Your task to perform on an android device: turn off location Image 0: 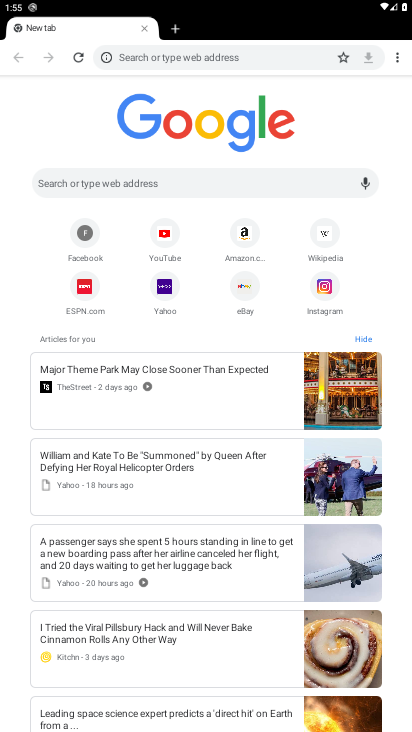
Step 0: drag from (137, 532) to (406, 2)
Your task to perform on an android device: turn off location Image 1: 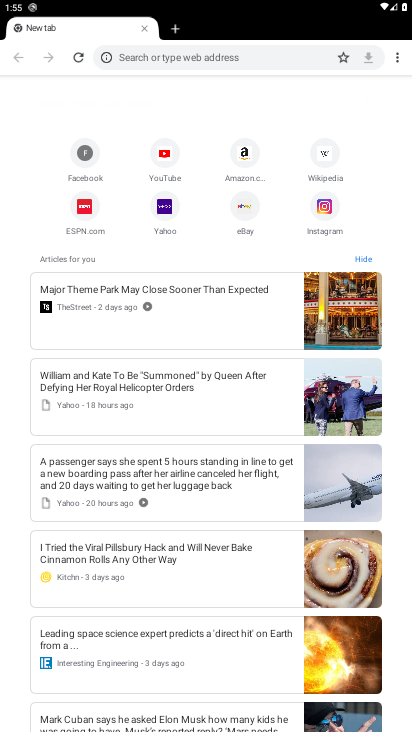
Step 1: press home button
Your task to perform on an android device: turn off location Image 2: 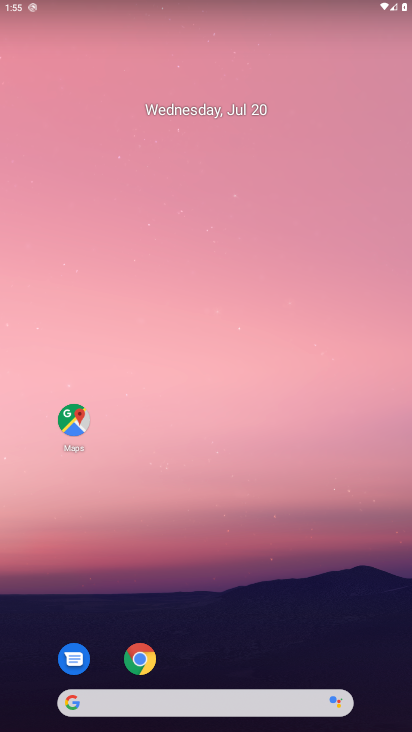
Step 2: drag from (25, 678) to (237, 162)
Your task to perform on an android device: turn off location Image 3: 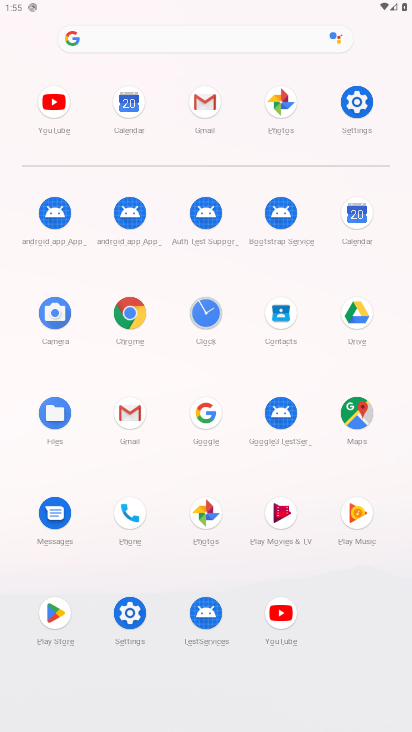
Step 3: click (148, 604)
Your task to perform on an android device: turn off location Image 4: 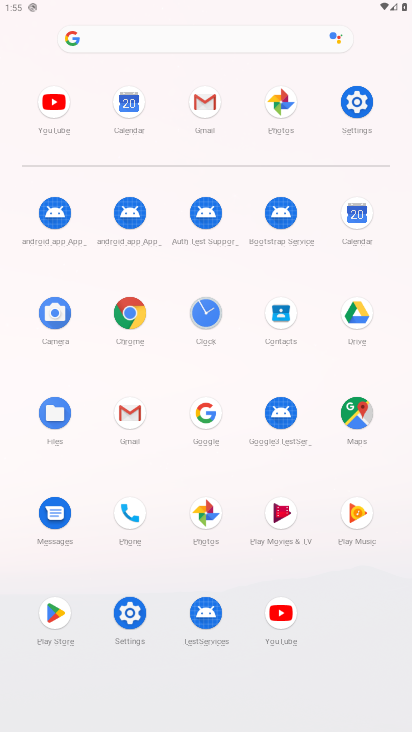
Step 4: click (124, 624)
Your task to perform on an android device: turn off location Image 5: 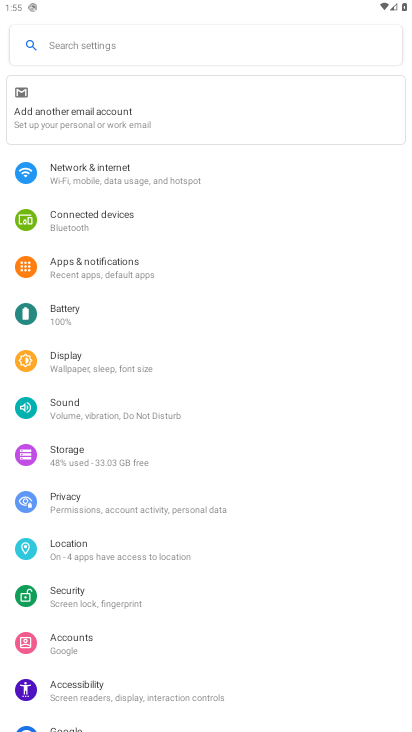
Step 5: click (105, 551)
Your task to perform on an android device: turn off location Image 6: 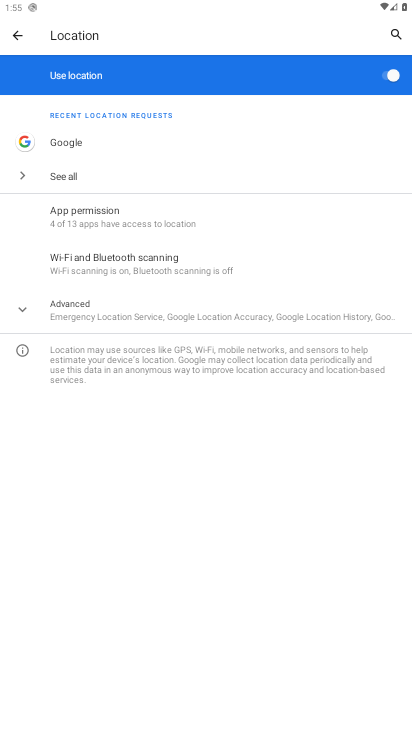
Step 6: click (396, 76)
Your task to perform on an android device: turn off location Image 7: 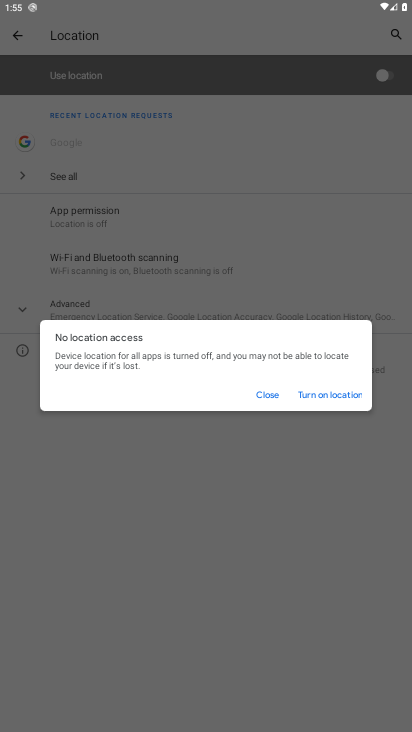
Step 7: task complete